Your task to perform on an android device: Open accessibility settings Image 0: 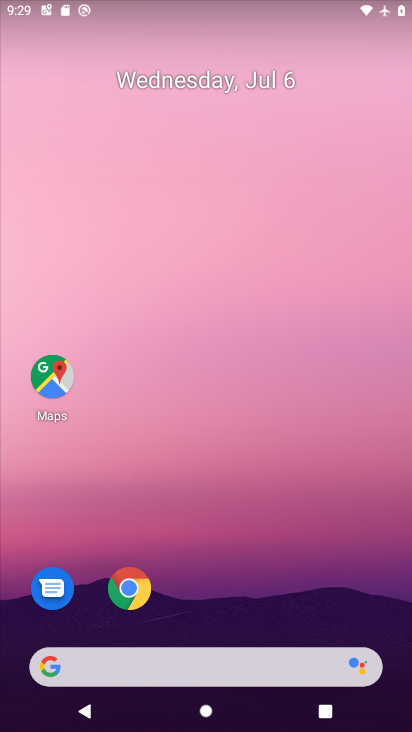
Step 0: drag from (244, 645) to (383, 81)
Your task to perform on an android device: Open accessibility settings Image 1: 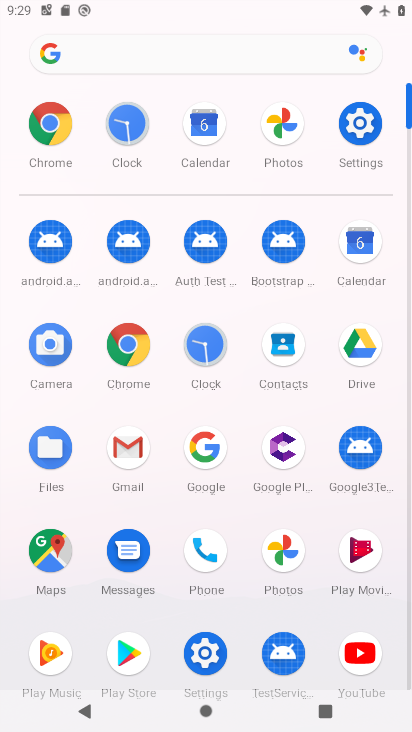
Step 1: click (361, 127)
Your task to perform on an android device: Open accessibility settings Image 2: 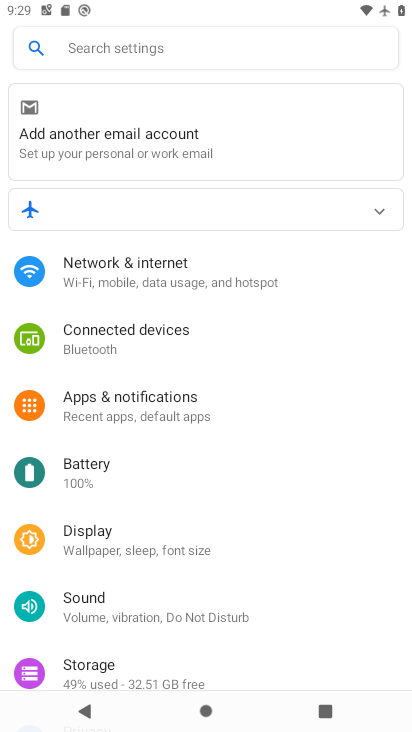
Step 2: drag from (228, 589) to (294, 54)
Your task to perform on an android device: Open accessibility settings Image 3: 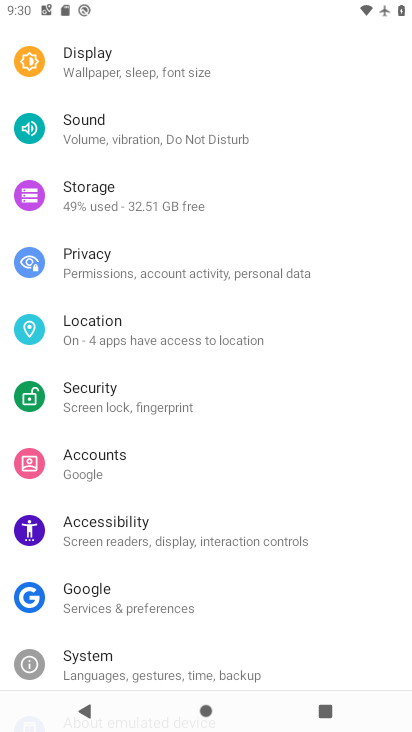
Step 3: click (144, 532)
Your task to perform on an android device: Open accessibility settings Image 4: 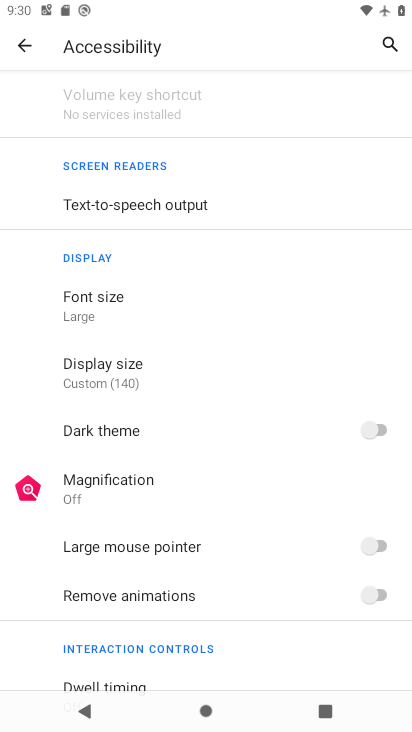
Step 4: task complete